Your task to perform on an android device: add a contact Image 0: 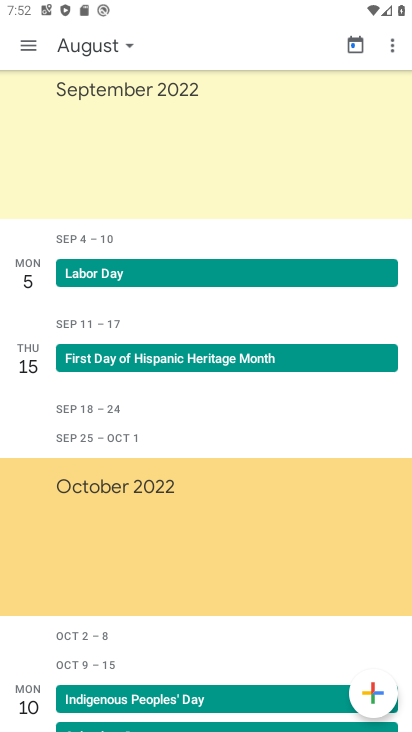
Step 0: press home button
Your task to perform on an android device: add a contact Image 1: 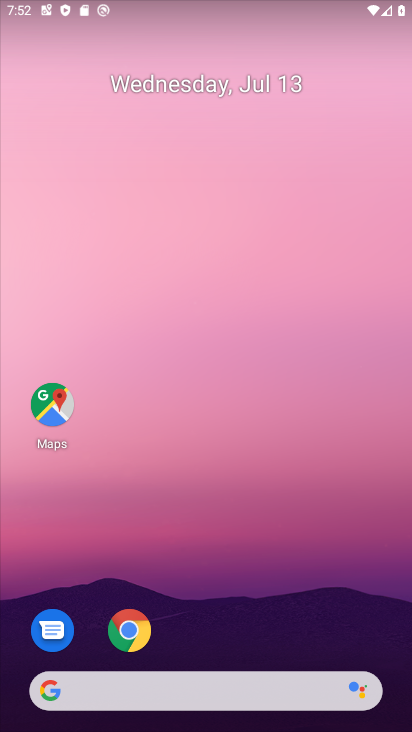
Step 1: drag from (348, 616) to (358, 125)
Your task to perform on an android device: add a contact Image 2: 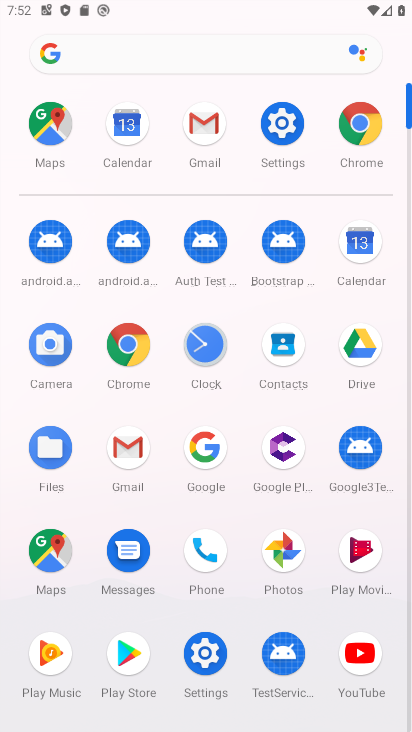
Step 2: click (286, 353)
Your task to perform on an android device: add a contact Image 3: 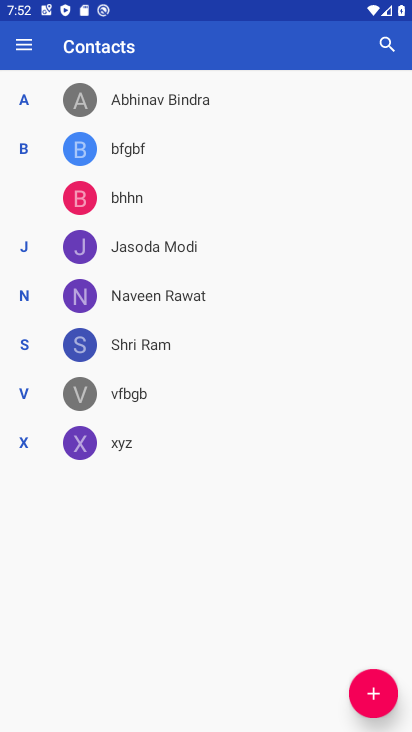
Step 3: click (374, 692)
Your task to perform on an android device: add a contact Image 4: 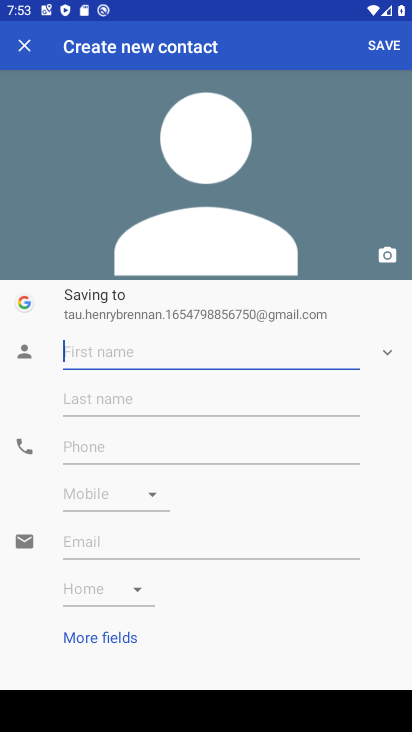
Step 4: type "fav"
Your task to perform on an android device: add a contact Image 5: 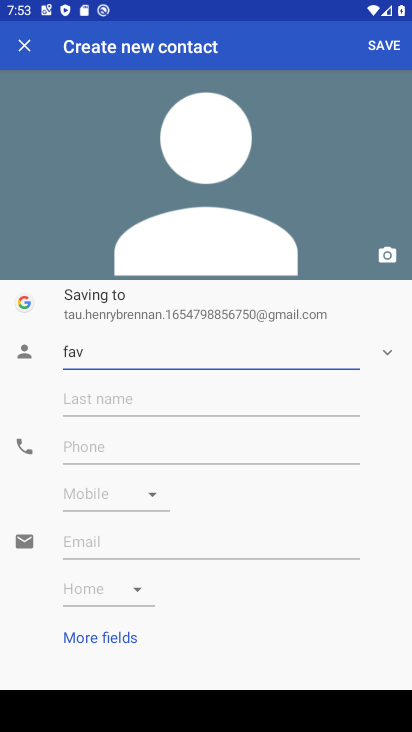
Step 5: click (265, 432)
Your task to perform on an android device: add a contact Image 6: 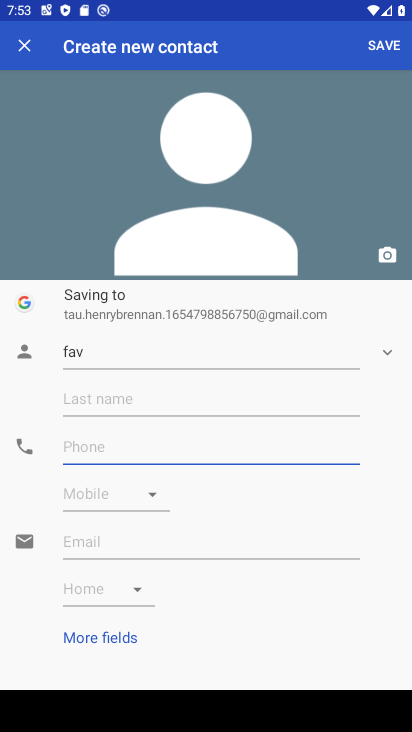
Step 6: type "123456789"
Your task to perform on an android device: add a contact Image 7: 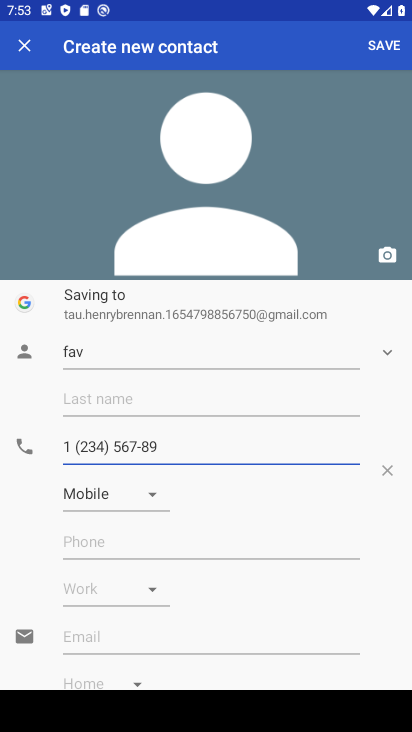
Step 7: click (393, 54)
Your task to perform on an android device: add a contact Image 8: 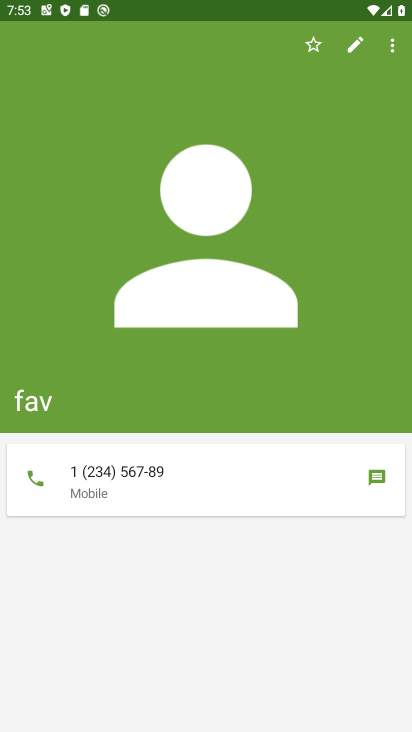
Step 8: task complete